Your task to perform on an android device: What's on my calendar today? Image 0: 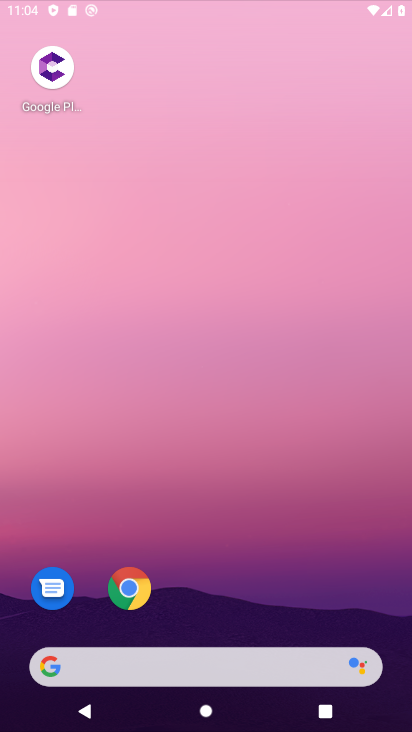
Step 0: click (178, 177)
Your task to perform on an android device: What's on my calendar today? Image 1: 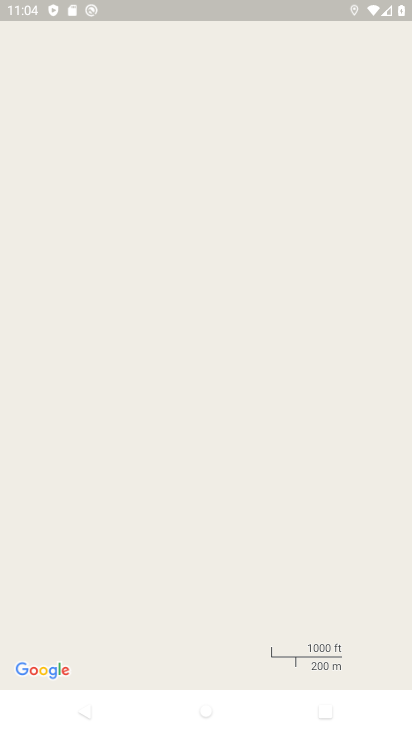
Step 1: press home button
Your task to perform on an android device: What's on my calendar today? Image 2: 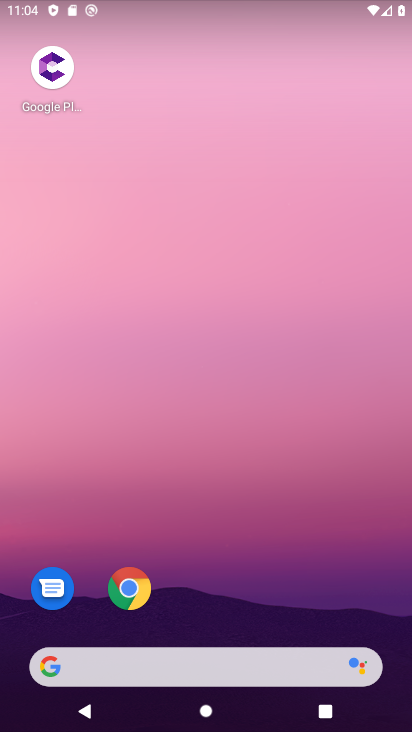
Step 2: drag from (187, 579) to (180, 143)
Your task to perform on an android device: What's on my calendar today? Image 3: 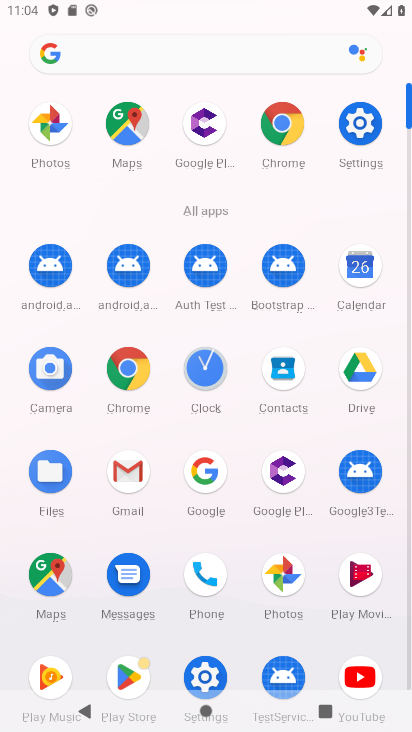
Step 3: click (347, 300)
Your task to perform on an android device: What's on my calendar today? Image 4: 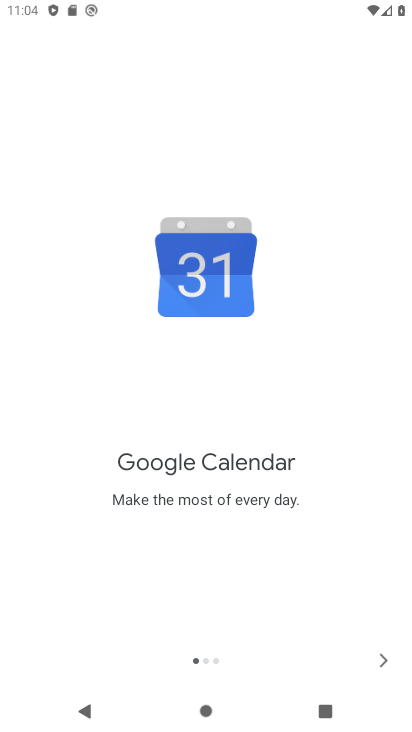
Step 4: click (381, 663)
Your task to perform on an android device: What's on my calendar today? Image 5: 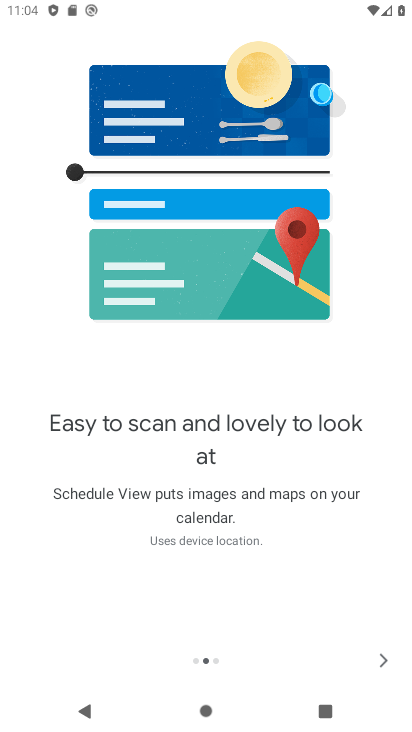
Step 5: click (381, 663)
Your task to perform on an android device: What's on my calendar today? Image 6: 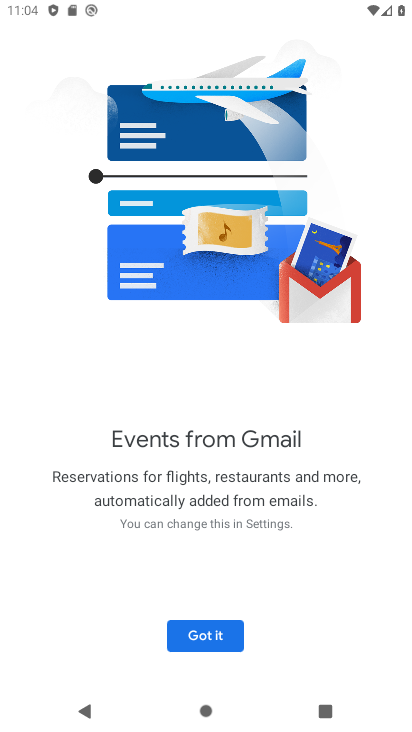
Step 6: click (189, 635)
Your task to perform on an android device: What's on my calendar today? Image 7: 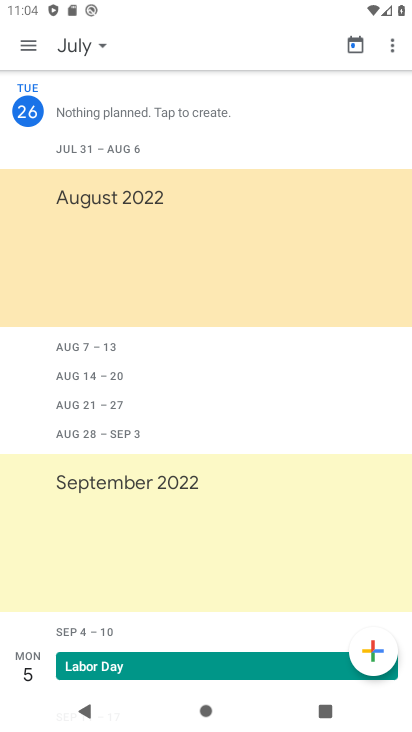
Step 7: click (133, 156)
Your task to perform on an android device: What's on my calendar today? Image 8: 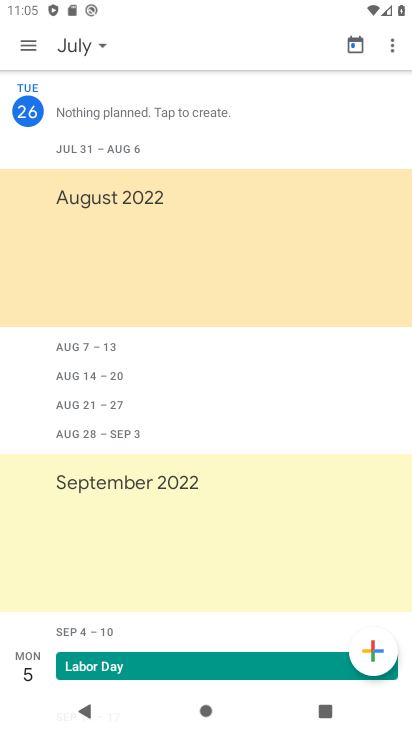
Step 8: task complete